Your task to perform on an android device: Open Google Chrome Image 0: 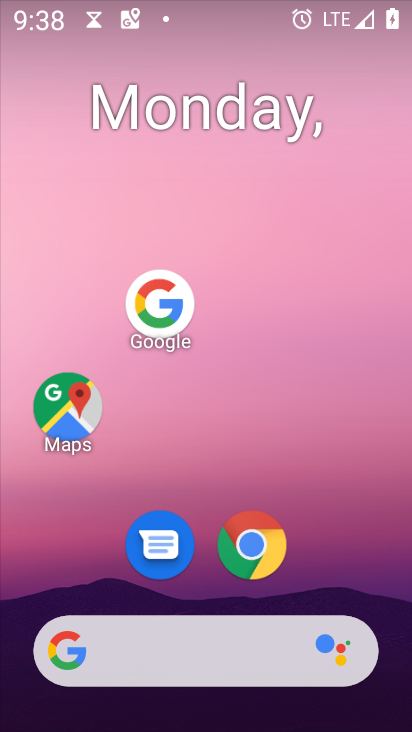
Step 0: press home button
Your task to perform on an android device: Open Google Chrome Image 1: 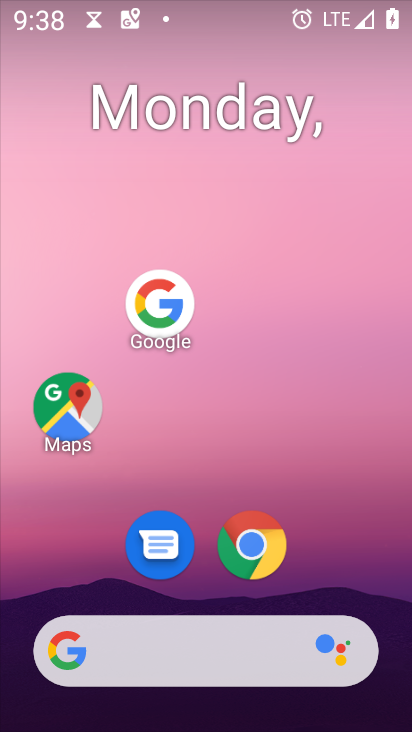
Step 1: click (251, 546)
Your task to perform on an android device: Open Google Chrome Image 2: 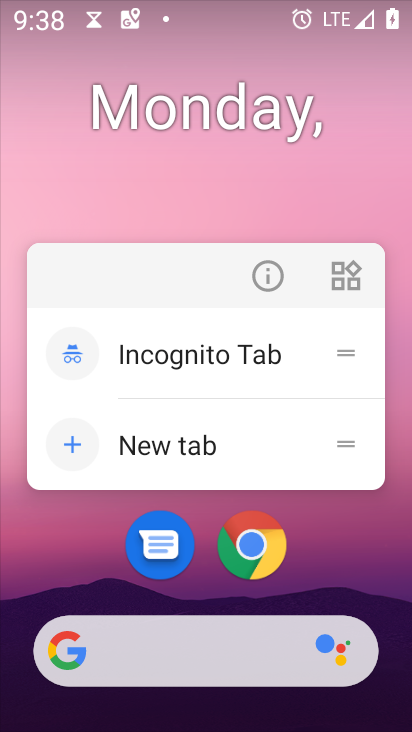
Step 2: click (253, 559)
Your task to perform on an android device: Open Google Chrome Image 3: 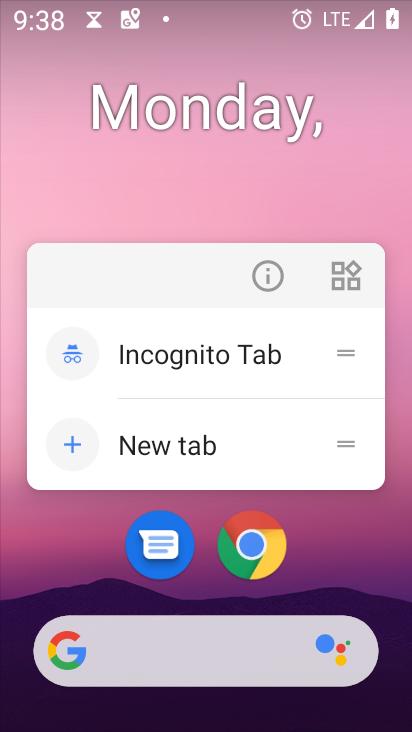
Step 3: click (241, 566)
Your task to perform on an android device: Open Google Chrome Image 4: 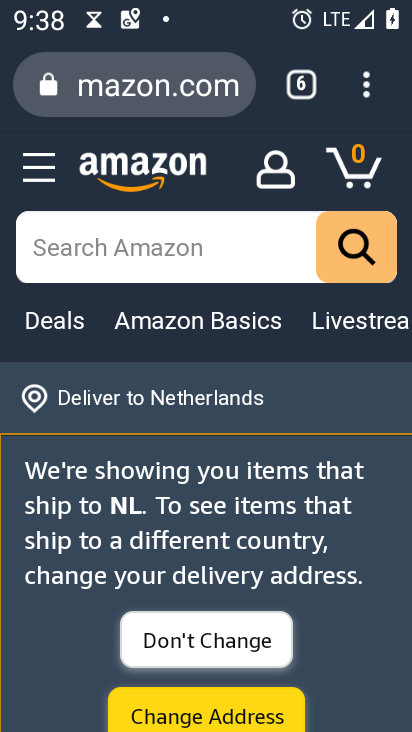
Step 4: task complete